Your task to perform on an android device: Open Youtube and go to the subscriptions tab Image 0: 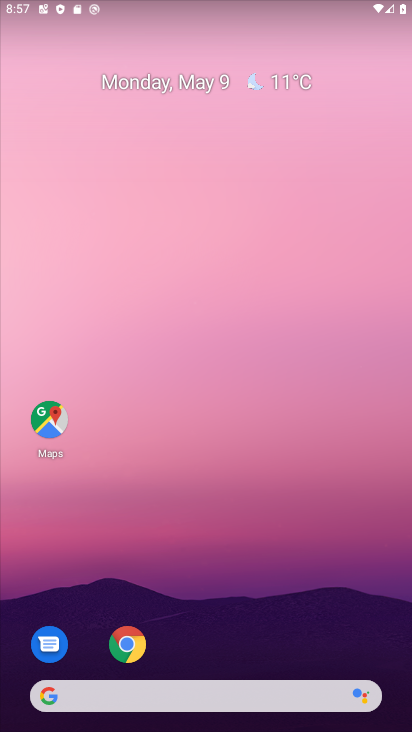
Step 0: drag from (184, 662) to (123, 31)
Your task to perform on an android device: Open Youtube and go to the subscriptions tab Image 1: 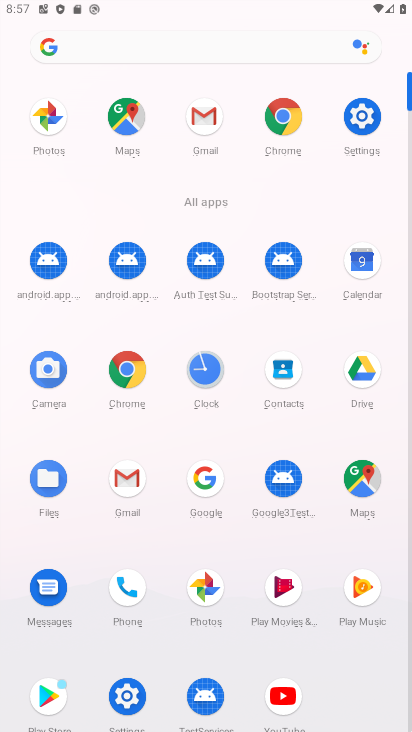
Step 1: click (284, 690)
Your task to perform on an android device: Open Youtube and go to the subscriptions tab Image 2: 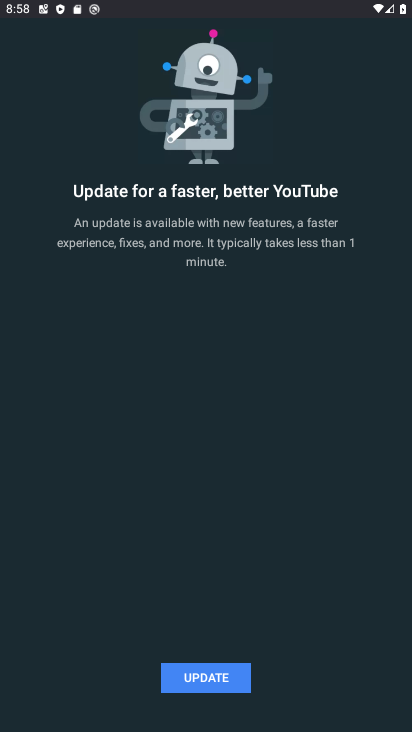
Step 2: click (206, 676)
Your task to perform on an android device: Open Youtube and go to the subscriptions tab Image 3: 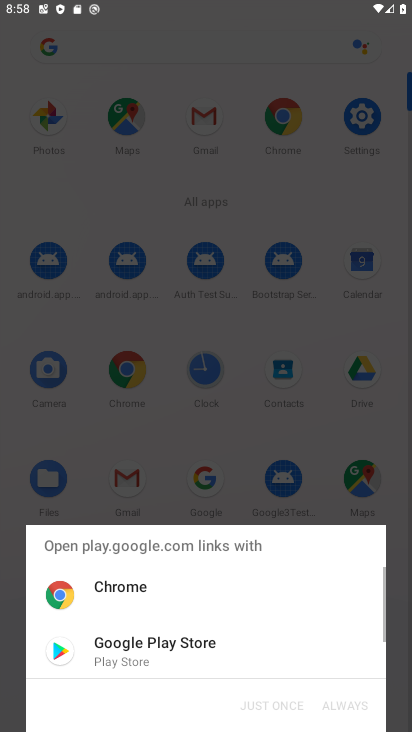
Step 3: click (146, 643)
Your task to perform on an android device: Open Youtube and go to the subscriptions tab Image 4: 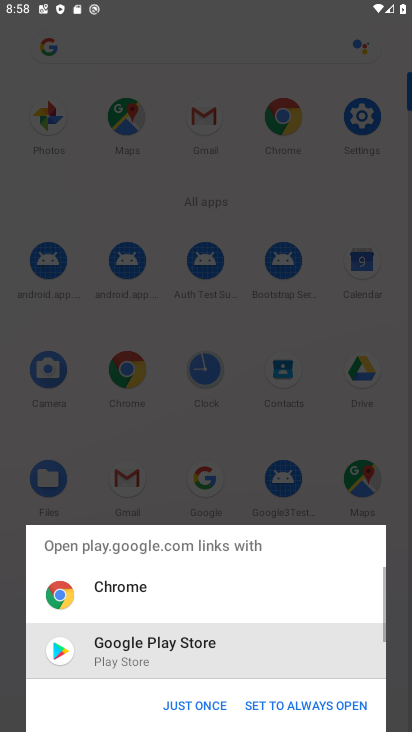
Step 4: click (187, 716)
Your task to perform on an android device: Open Youtube and go to the subscriptions tab Image 5: 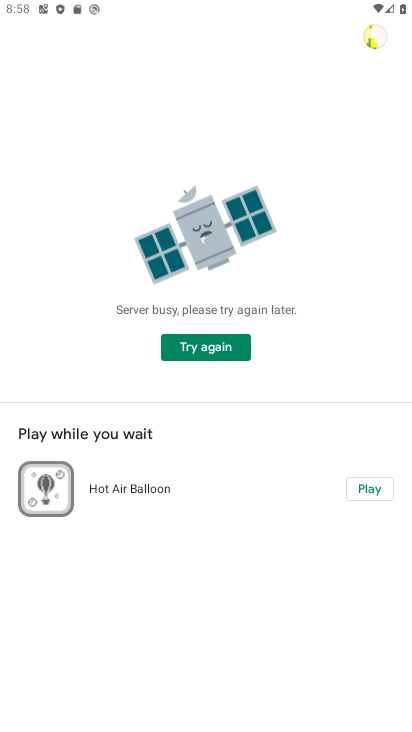
Step 5: click (196, 344)
Your task to perform on an android device: Open Youtube and go to the subscriptions tab Image 6: 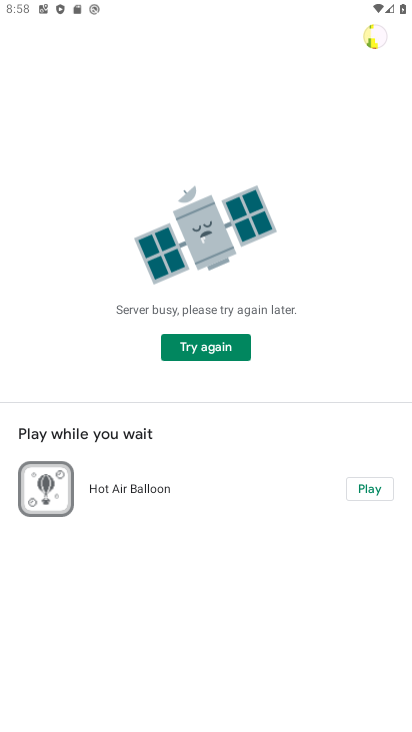
Step 6: task complete